Your task to perform on an android device: Open eBay Image 0: 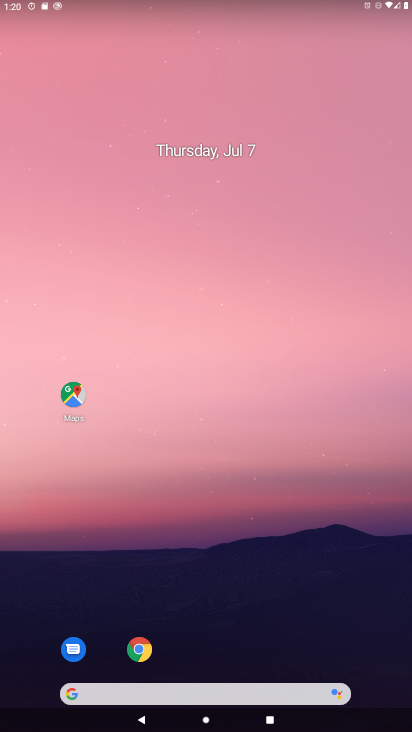
Step 0: click (134, 647)
Your task to perform on an android device: Open eBay Image 1: 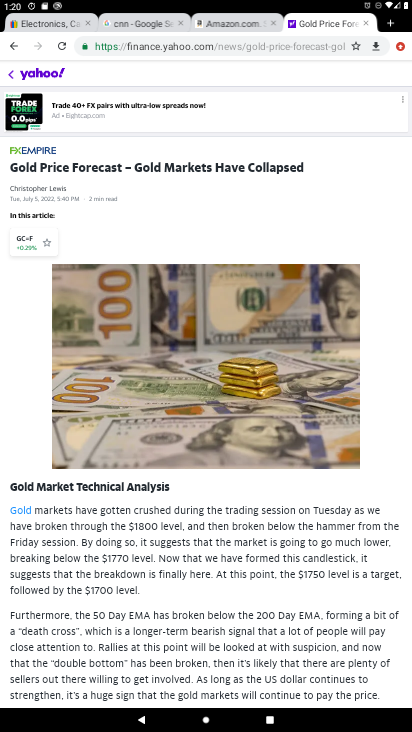
Step 1: click (51, 20)
Your task to perform on an android device: Open eBay Image 2: 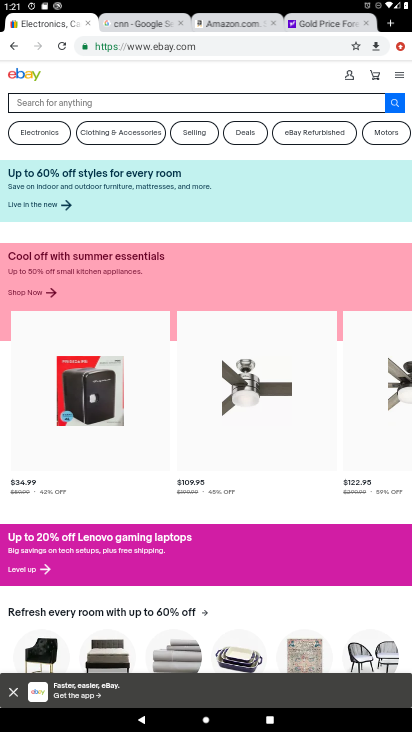
Step 2: task complete